Your task to perform on an android device: Open Google Maps and go to "Timeline" Image 0: 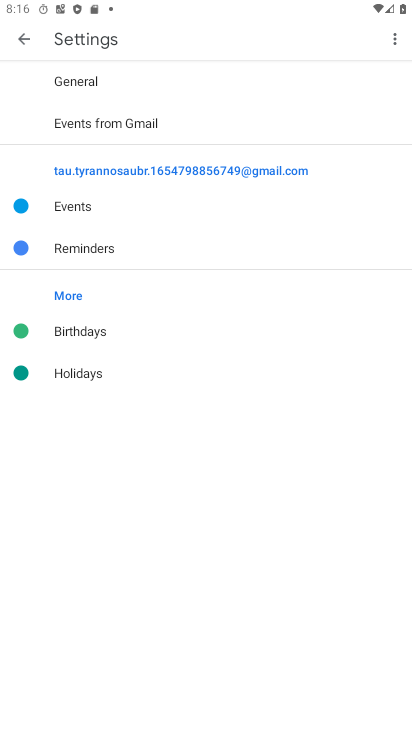
Step 0: press home button
Your task to perform on an android device: Open Google Maps and go to "Timeline" Image 1: 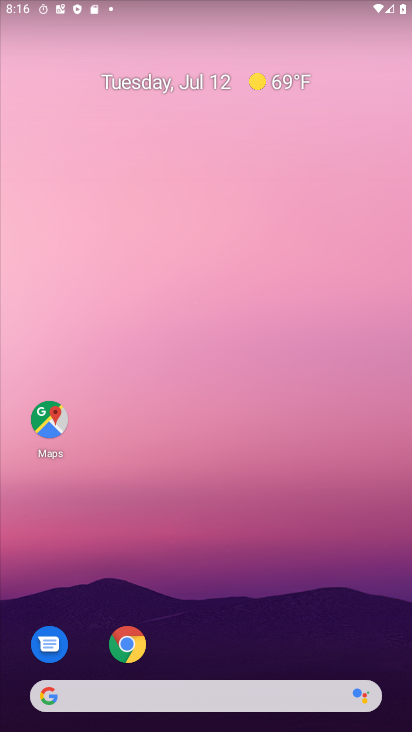
Step 1: drag from (208, 645) to (223, 63)
Your task to perform on an android device: Open Google Maps and go to "Timeline" Image 2: 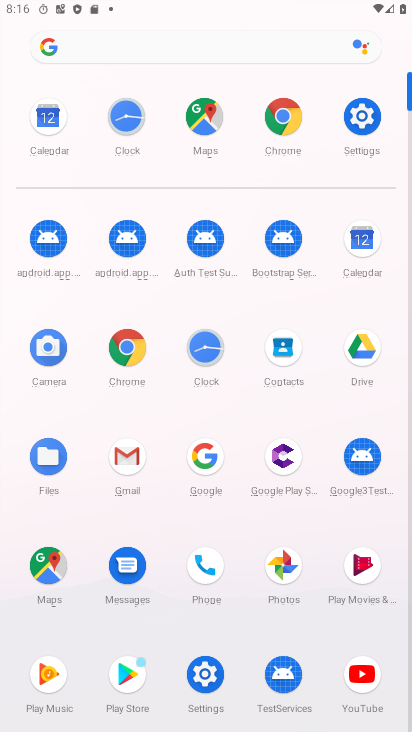
Step 2: click (48, 562)
Your task to perform on an android device: Open Google Maps and go to "Timeline" Image 3: 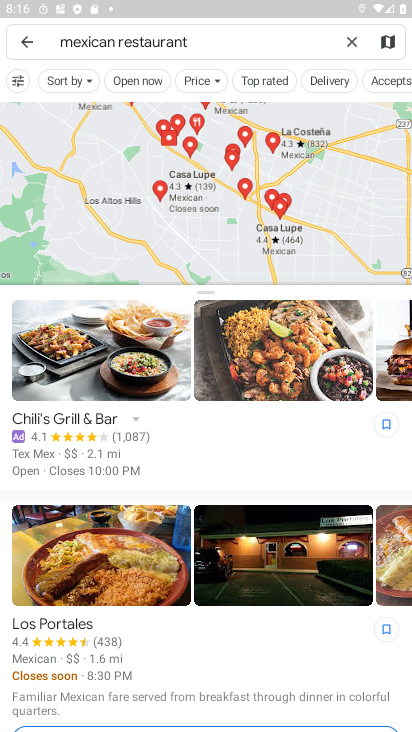
Step 3: click (14, 39)
Your task to perform on an android device: Open Google Maps and go to "Timeline" Image 4: 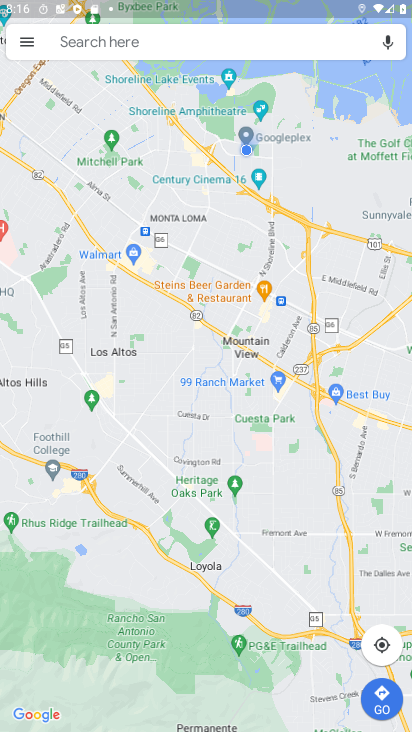
Step 4: click (23, 42)
Your task to perform on an android device: Open Google Maps and go to "Timeline" Image 5: 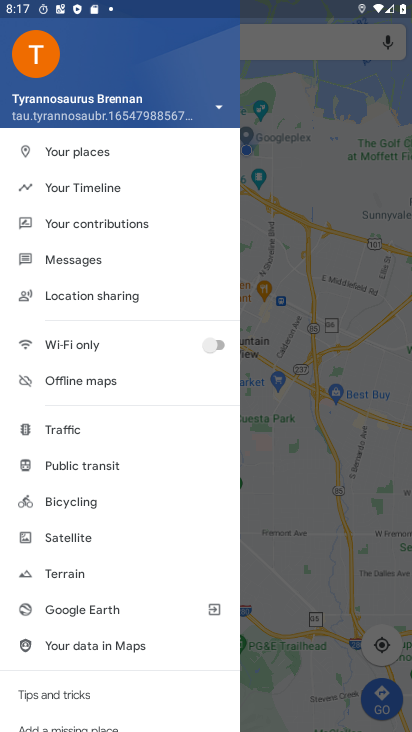
Step 5: click (71, 189)
Your task to perform on an android device: Open Google Maps and go to "Timeline" Image 6: 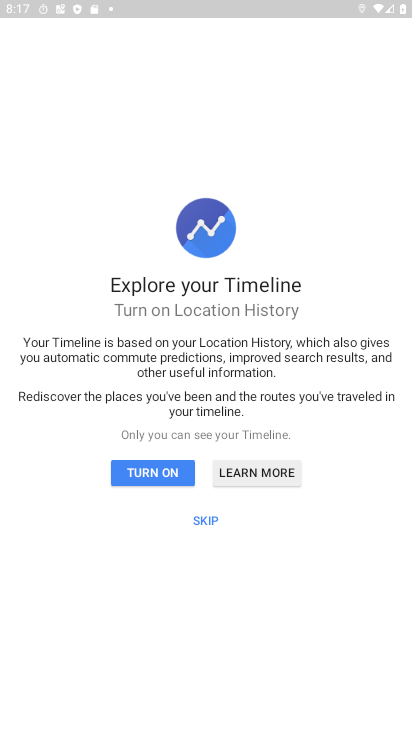
Step 6: click (135, 469)
Your task to perform on an android device: Open Google Maps and go to "Timeline" Image 7: 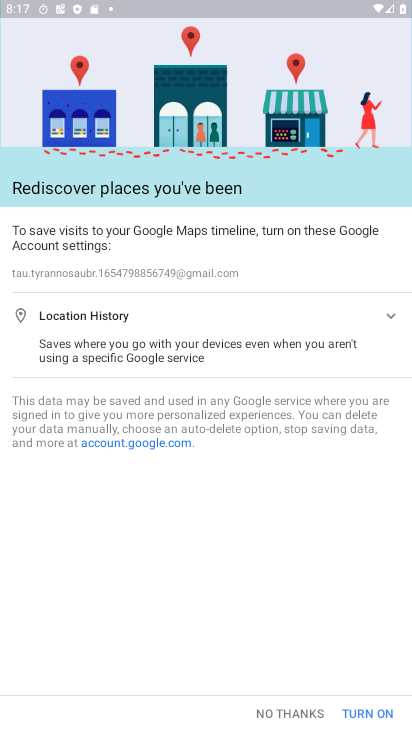
Step 7: click (370, 709)
Your task to perform on an android device: Open Google Maps and go to "Timeline" Image 8: 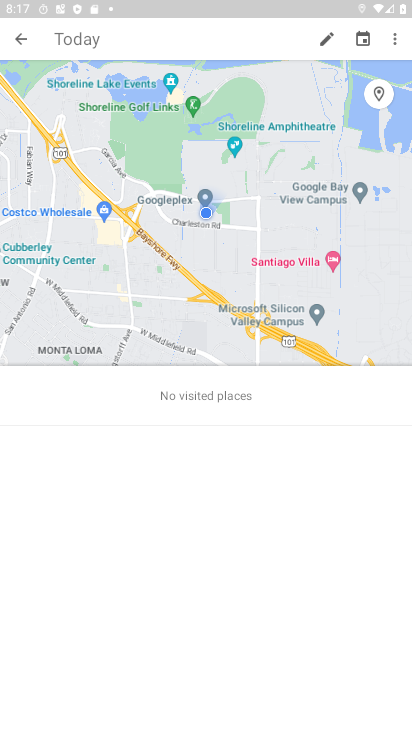
Step 8: task complete